Your task to perform on an android device: set the timer Image 0: 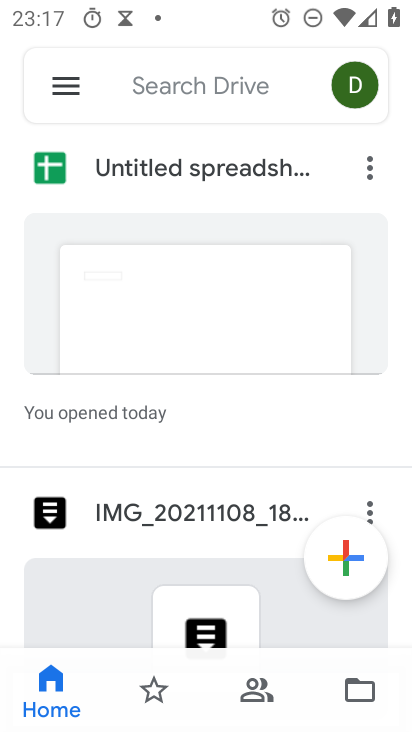
Step 0: press home button
Your task to perform on an android device: set the timer Image 1: 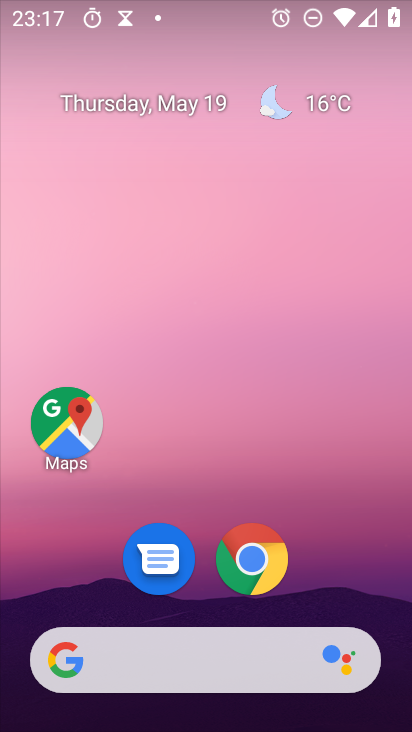
Step 1: drag from (236, 726) to (253, 251)
Your task to perform on an android device: set the timer Image 2: 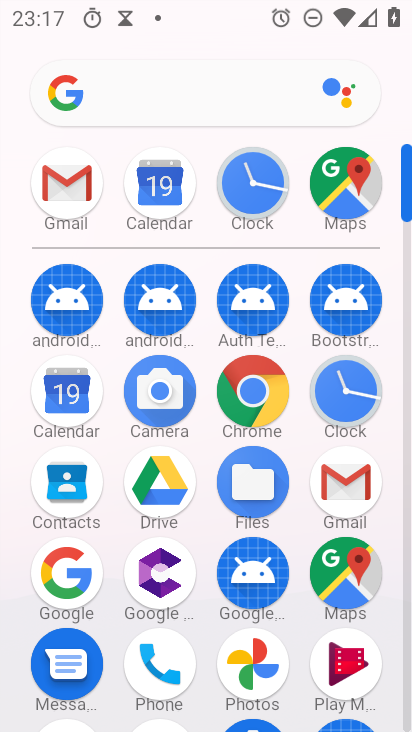
Step 2: click (341, 386)
Your task to perform on an android device: set the timer Image 3: 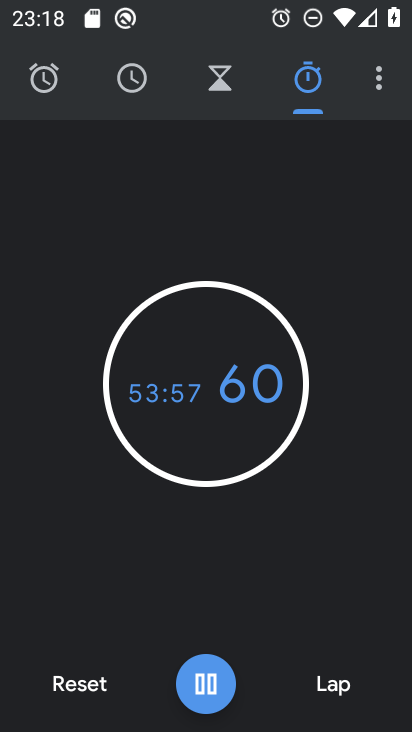
Step 3: click (216, 76)
Your task to perform on an android device: set the timer Image 4: 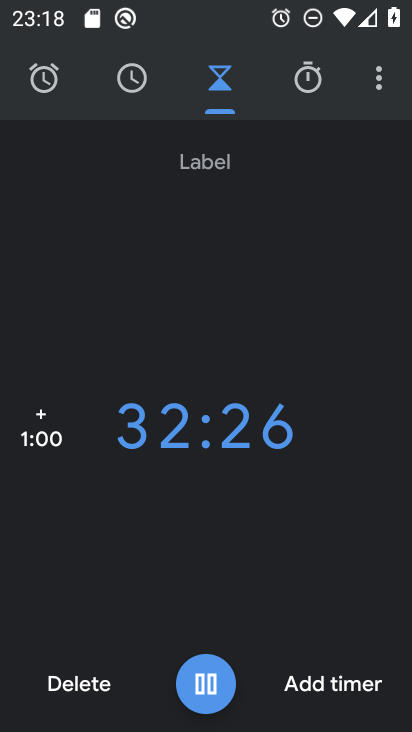
Step 4: click (295, 686)
Your task to perform on an android device: set the timer Image 5: 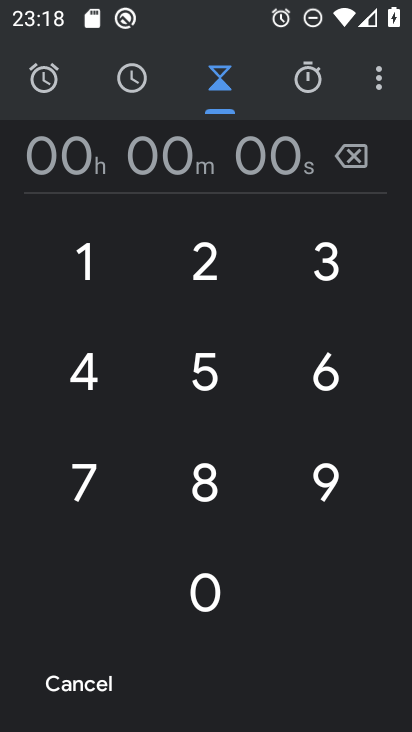
Step 5: click (205, 368)
Your task to perform on an android device: set the timer Image 6: 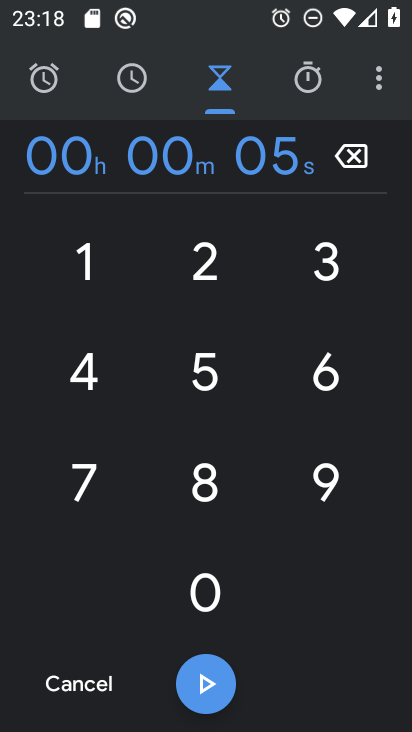
Step 6: click (315, 368)
Your task to perform on an android device: set the timer Image 7: 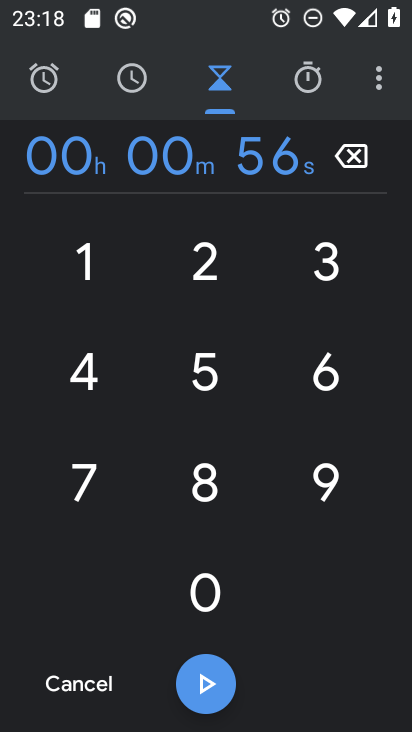
Step 7: click (322, 238)
Your task to perform on an android device: set the timer Image 8: 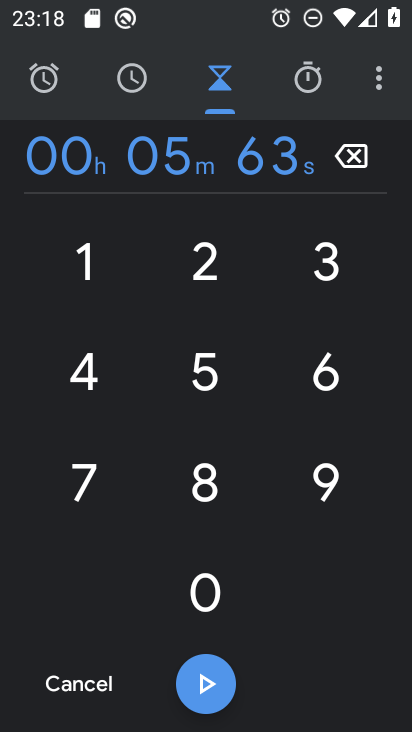
Step 8: click (211, 686)
Your task to perform on an android device: set the timer Image 9: 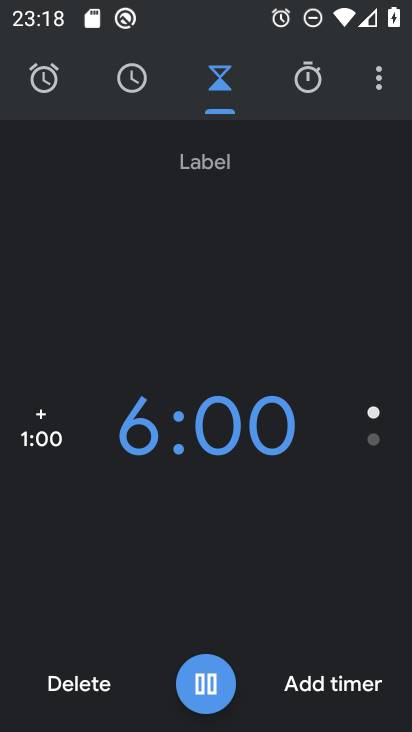
Step 9: task complete